Your task to perform on an android device: set an alarm Image 0: 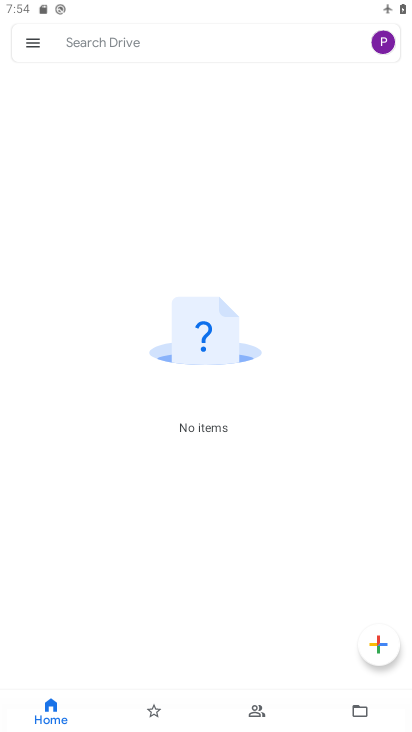
Step 0: press home button
Your task to perform on an android device: set an alarm Image 1: 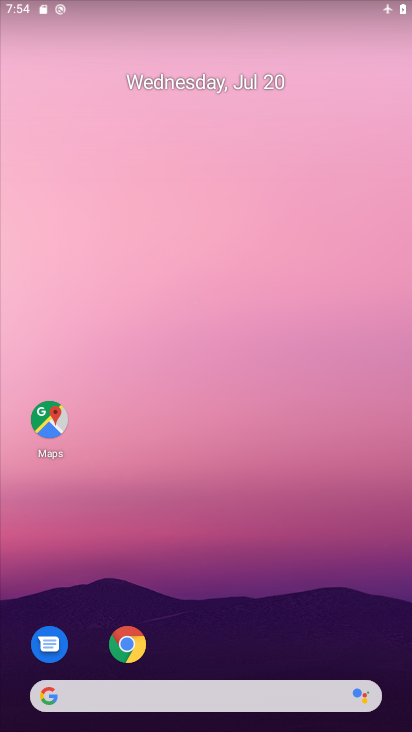
Step 1: drag from (151, 680) to (190, 204)
Your task to perform on an android device: set an alarm Image 2: 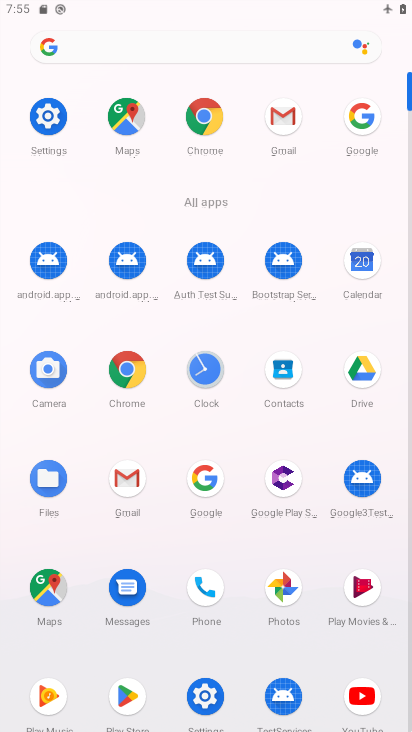
Step 2: click (205, 369)
Your task to perform on an android device: set an alarm Image 3: 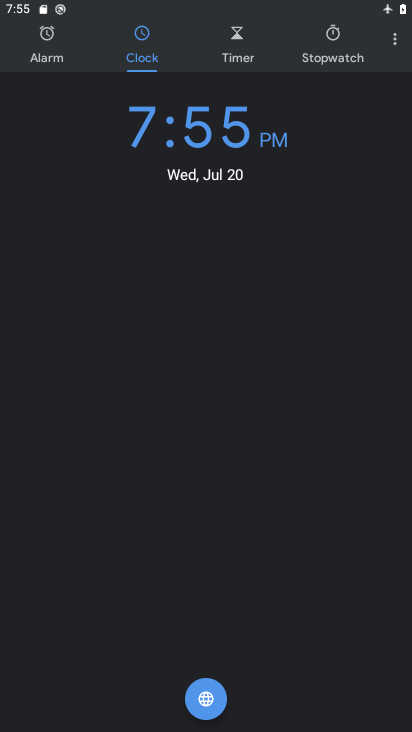
Step 3: click (45, 56)
Your task to perform on an android device: set an alarm Image 4: 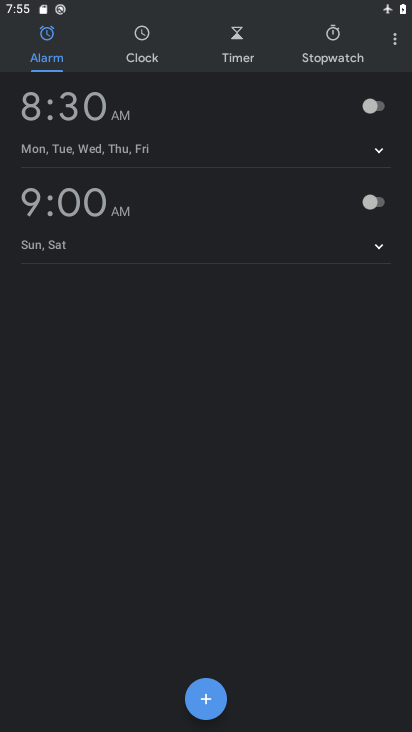
Step 4: click (210, 692)
Your task to perform on an android device: set an alarm Image 5: 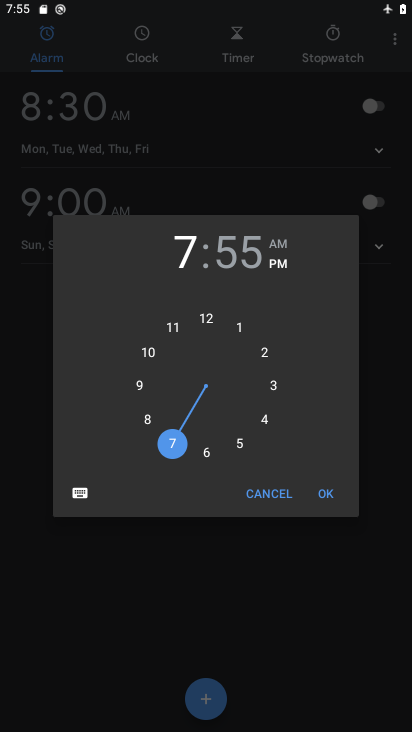
Step 5: click (201, 314)
Your task to perform on an android device: set an alarm Image 6: 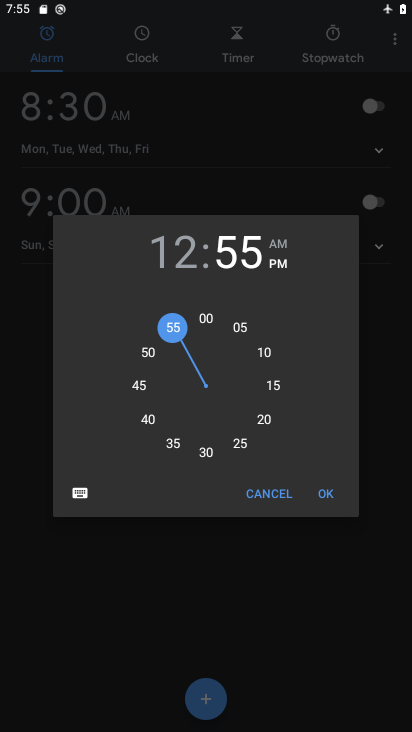
Step 6: click (213, 320)
Your task to perform on an android device: set an alarm Image 7: 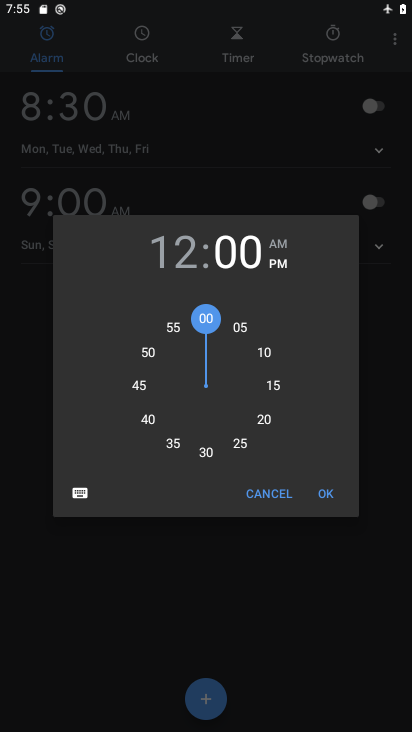
Step 7: click (284, 267)
Your task to perform on an android device: set an alarm Image 8: 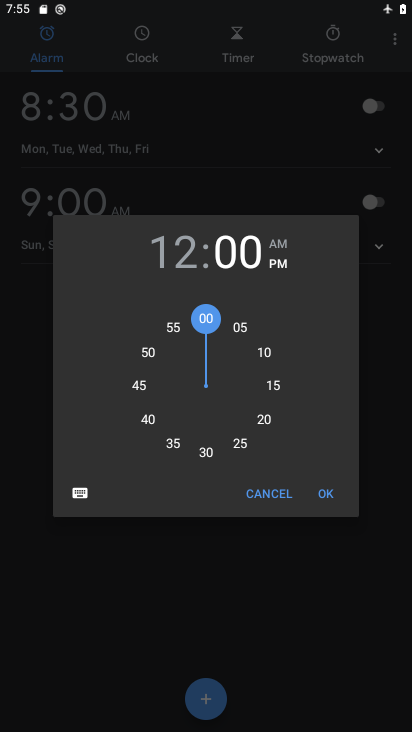
Step 8: click (337, 485)
Your task to perform on an android device: set an alarm Image 9: 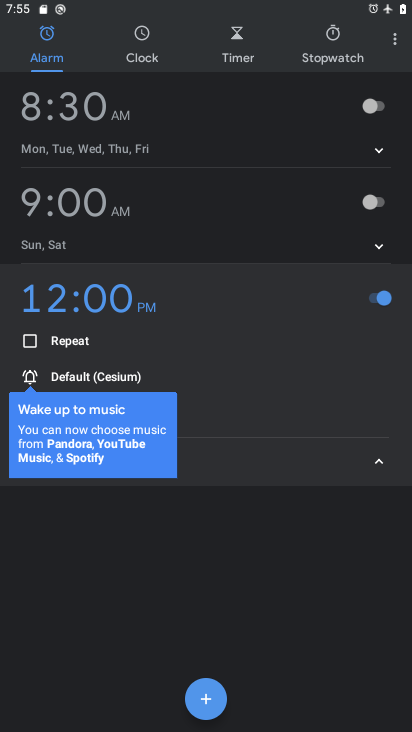
Step 9: task complete